Your task to perform on an android device: Open ESPN.com Image 0: 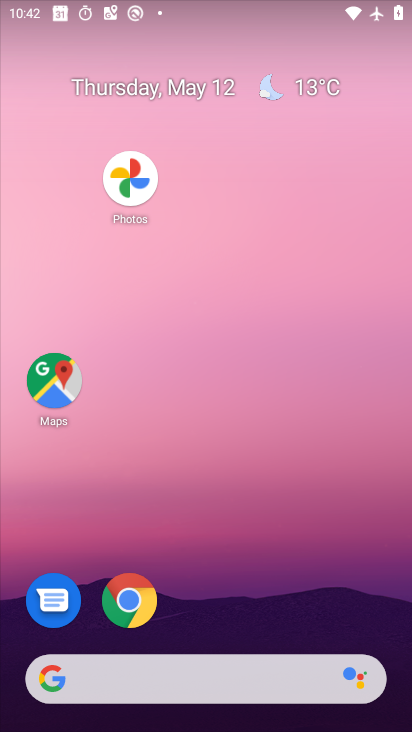
Step 0: drag from (276, 610) to (175, 5)
Your task to perform on an android device: Open ESPN.com Image 1: 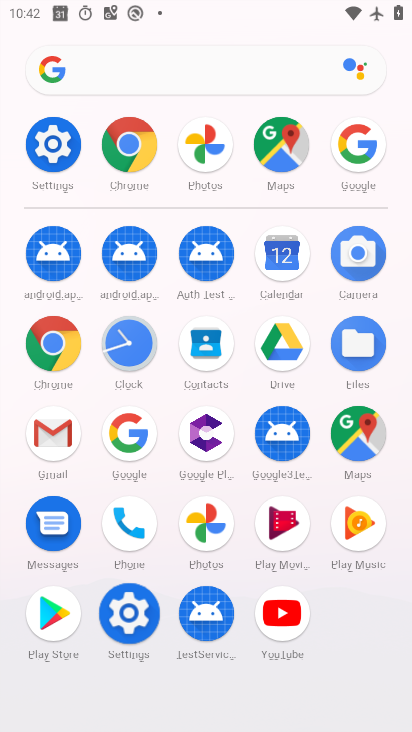
Step 1: click (118, 133)
Your task to perform on an android device: Open ESPN.com Image 2: 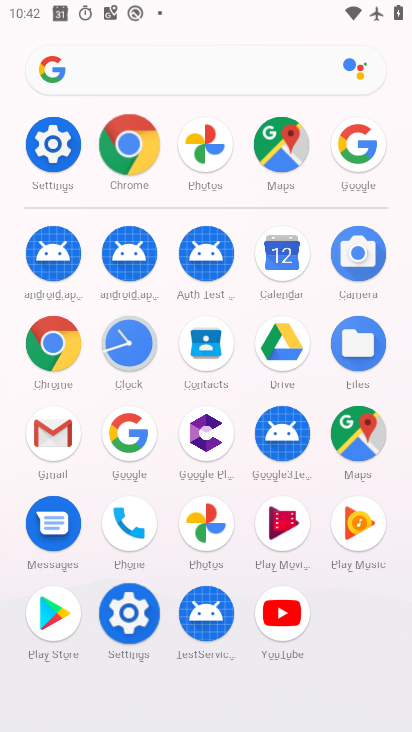
Step 2: click (127, 136)
Your task to perform on an android device: Open ESPN.com Image 3: 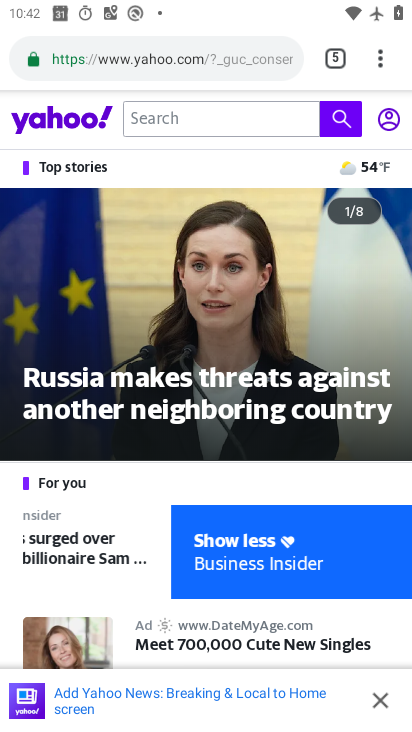
Step 3: click (378, 61)
Your task to perform on an android device: Open ESPN.com Image 4: 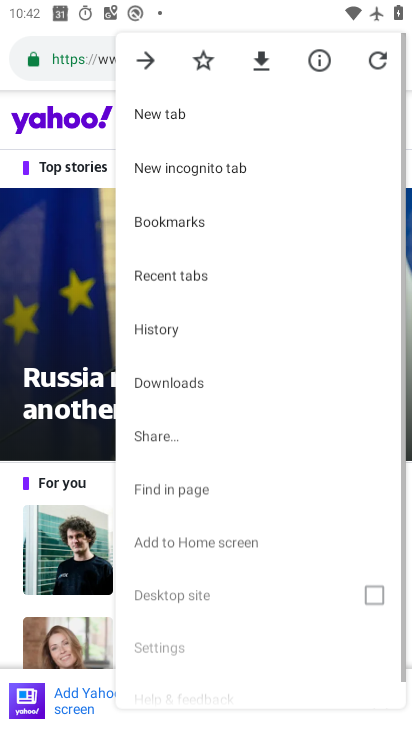
Step 4: drag from (378, 53) to (153, 92)
Your task to perform on an android device: Open ESPN.com Image 5: 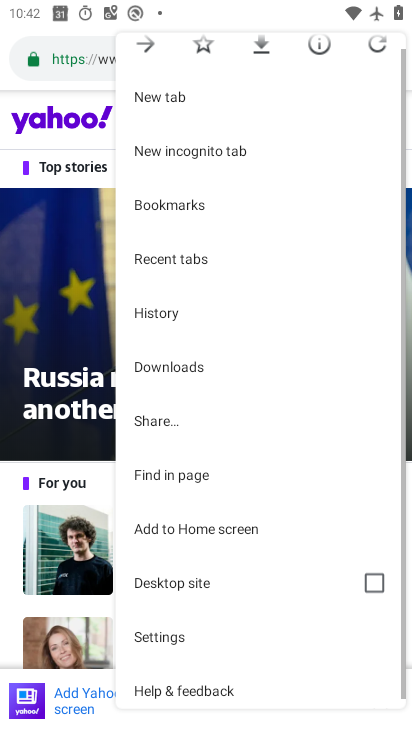
Step 5: click (153, 92)
Your task to perform on an android device: Open ESPN.com Image 6: 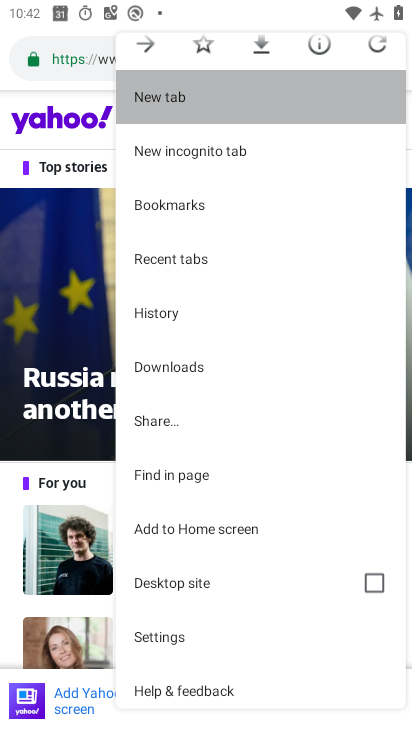
Step 6: click (149, 91)
Your task to perform on an android device: Open ESPN.com Image 7: 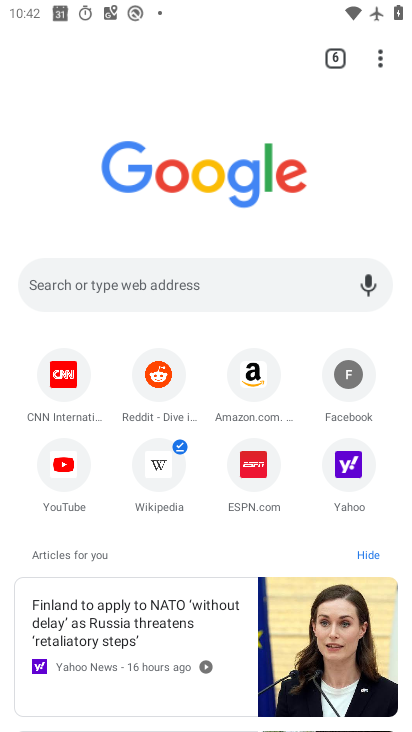
Step 7: click (236, 460)
Your task to perform on an android device: Open ESPN.com Image 8: 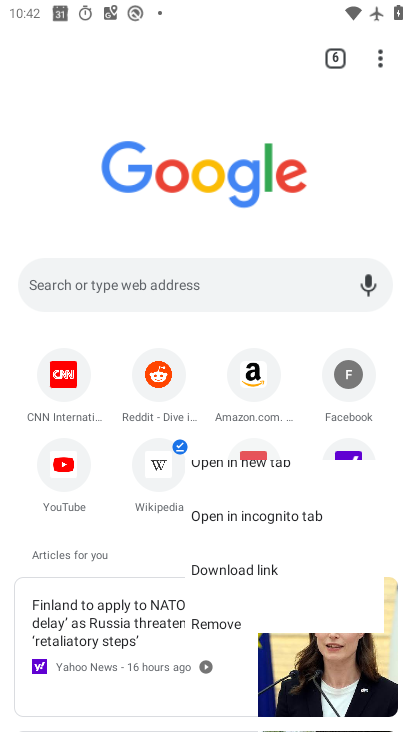
Step 8: click (258, 462)
Your task to perform on an android device: Open ESPN.com Image 9: 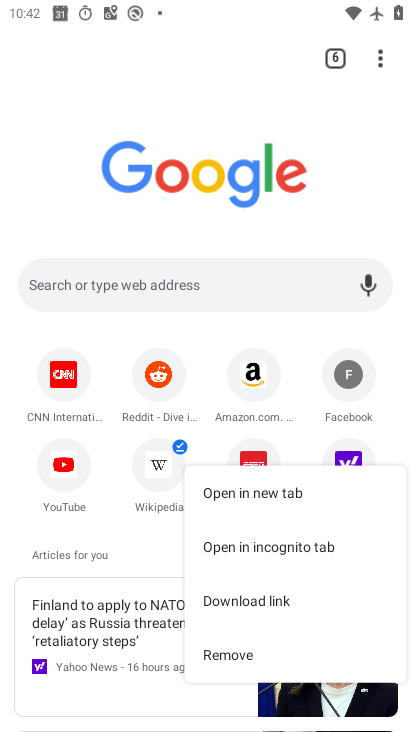
Step 9: click (259, 461)
Your task to perform on an android device: Open ESPN.com Image 10: 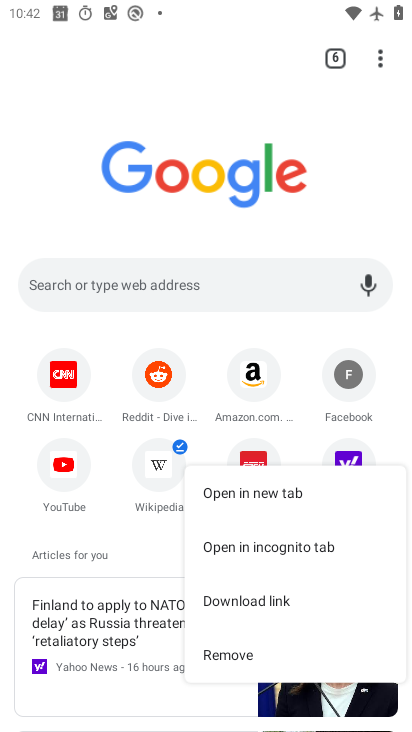
Step 10: click (260, 462)
Your task to perform on an android device: Open ESPN.com Image 11: 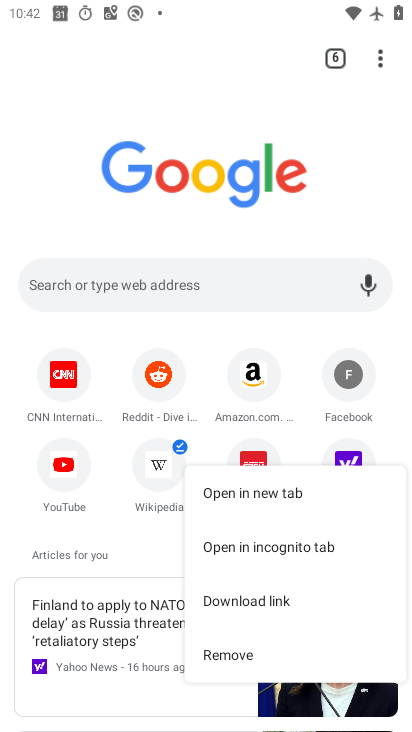
Step 11: click (261, 462)
Your task to perform on an android device: Open ESPN.com Image 12: 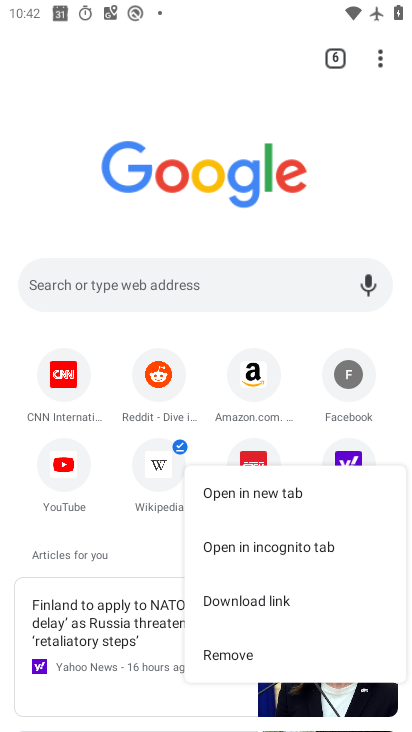
Step 12: click (263, 461)
Your task to perform on an android device: Open ESPN.com Image 13: 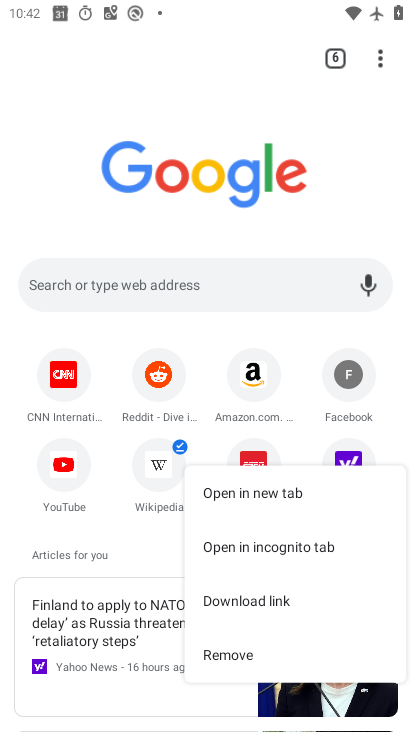
Step 13: click (247, 445)
Your task to perform on an android device: Open ESPN.com Image 14: 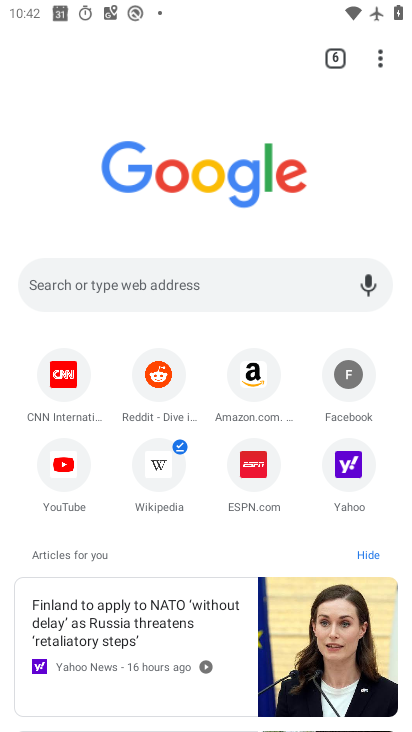
Step 14: click (247, 446)
Your task to perform on an android device: Open ESPN.com Image 15: 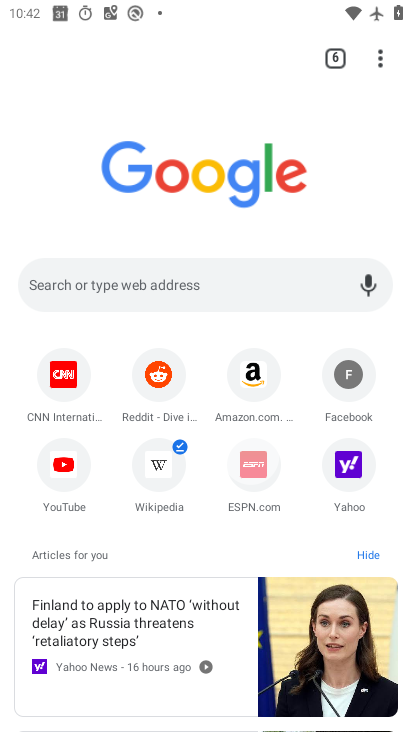
Step 15: click (248, 449)
Your task to perform on an android device: Open ESPN.com Image 16: 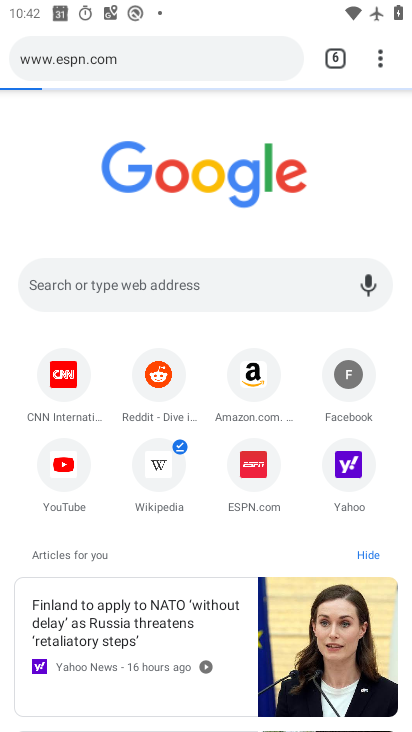
Step 16: click (248, 454)
Your task to perform on an android device: Open ESPN.com Image 17: 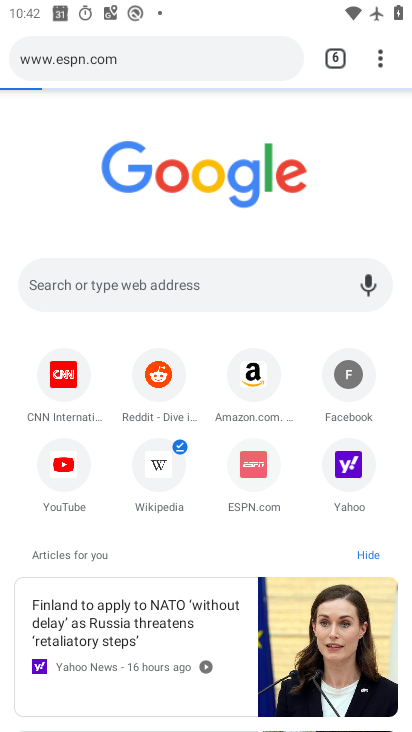
Step 17: click (248, 454)
Your task to perform on an android device: Open ESPN.com Image 18: 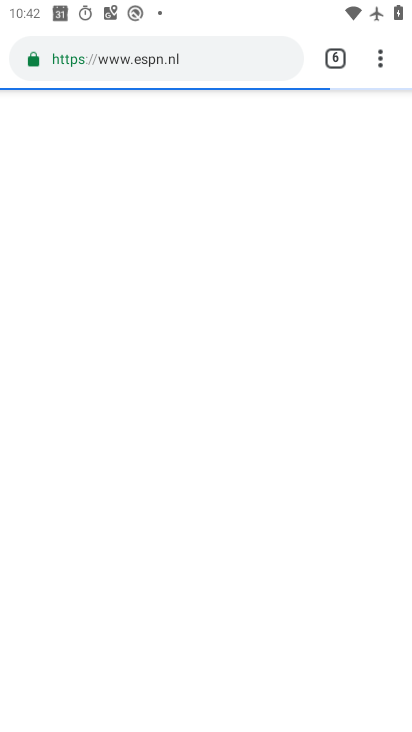
Step 18: task complete